Your task to perform on an android device: Search for pizza restaurants on Maps Image 0: 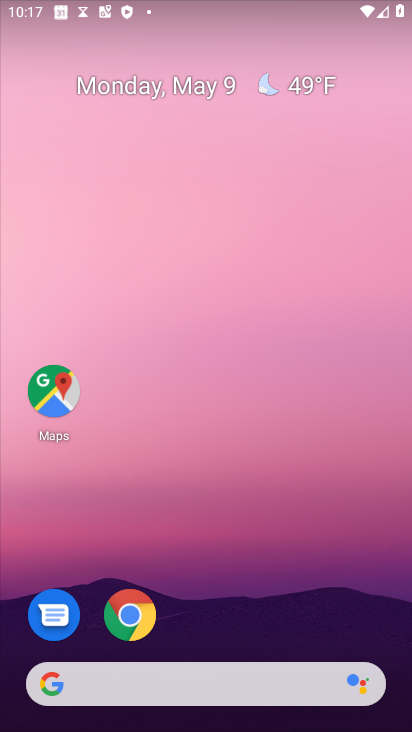
Step 0: click (43, 401)
Your task to perform on an android device: Search for pizza restaurants on Maps Image 1: 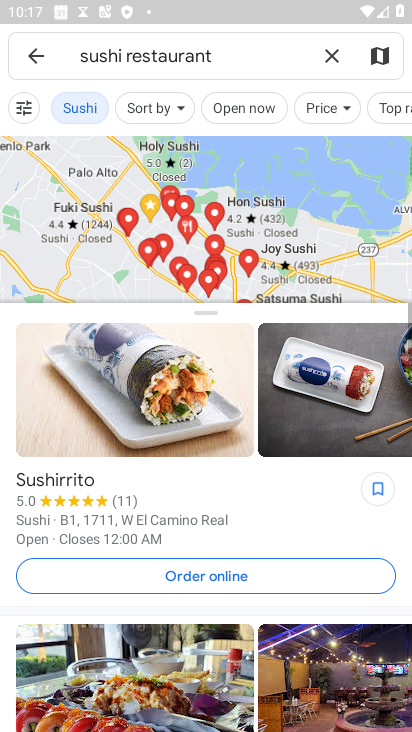
Step 1: click (334, 53)
Your task to perform on an android device: Search for pizza restaurants on Maps Image 2: 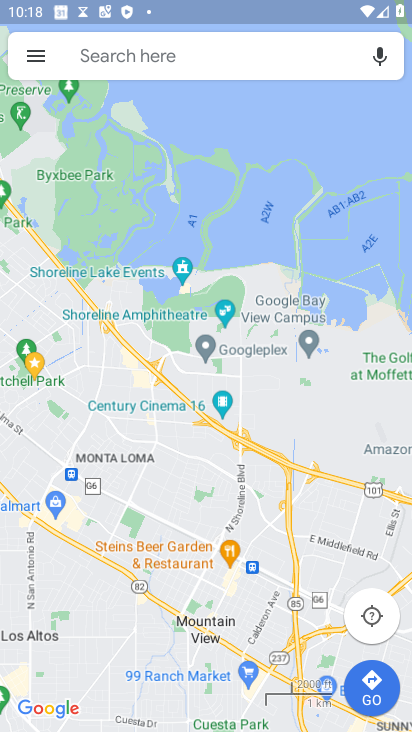
Step 2: click (149, 57)
Your task to perform on an android device: Search for pizza restaurants on Maps Image 3: 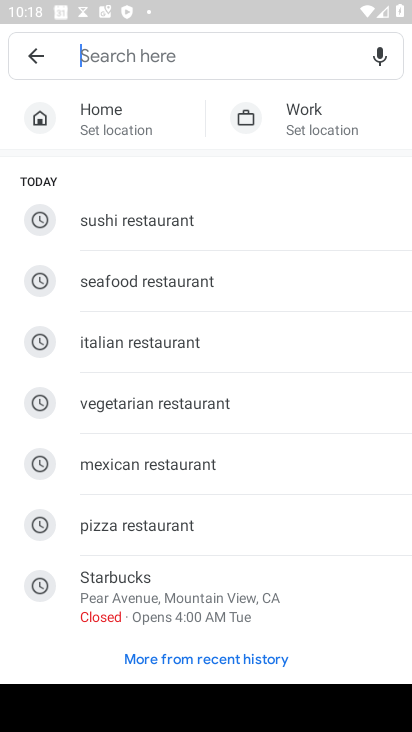
Step 3: click (199, 530)
Your task to perform on an android device: Search for pizza restaurants on Maps Image 4: 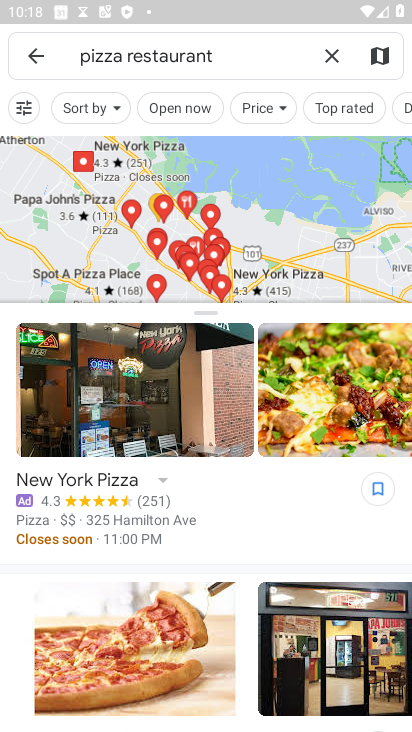
Step 4: task complete